Your task to perform on an android device: Open privacy settings Image 0: 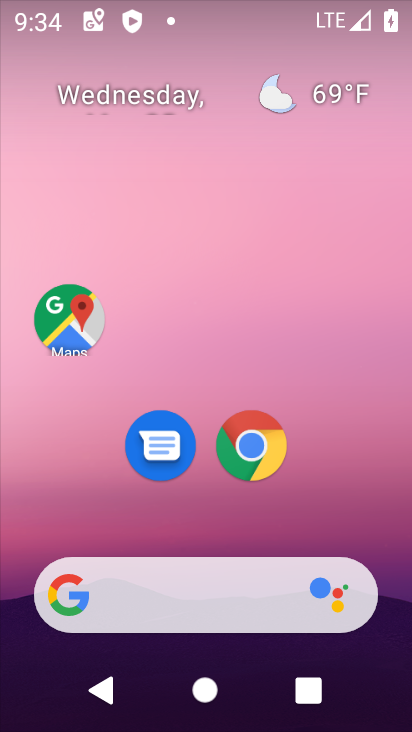
Step 0: drag from (300, 449) to (289, 134)
Your task to perform on an android device: Open privacy settings Image 1: 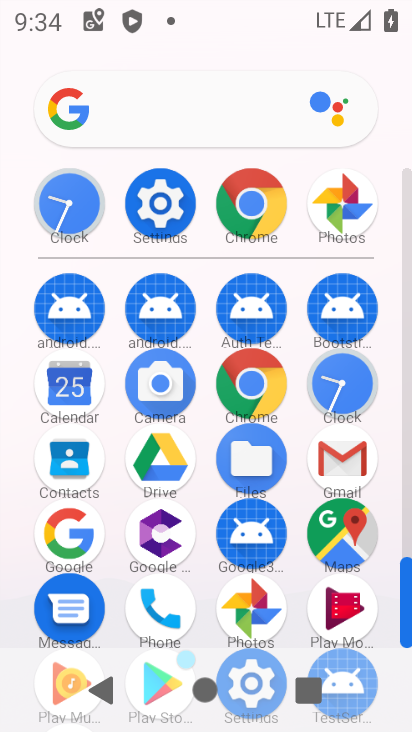
Step 1: click (172, 203)
Your task to perform on an android device: Open privacy settings Image 2: 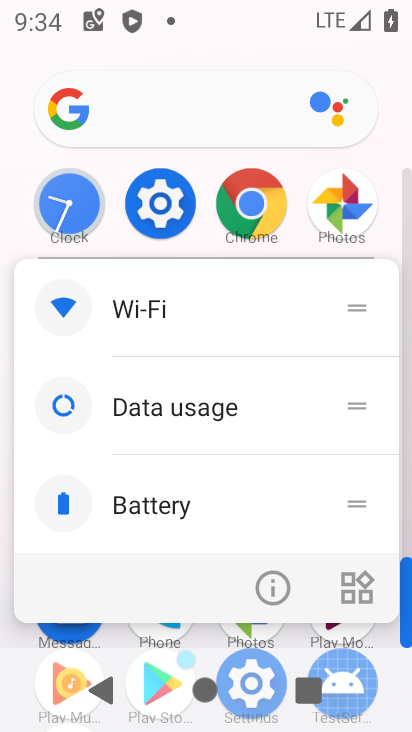
Step 2: click (159, 204)
Your task to perform on an android device: Open privacy settings Image 3: 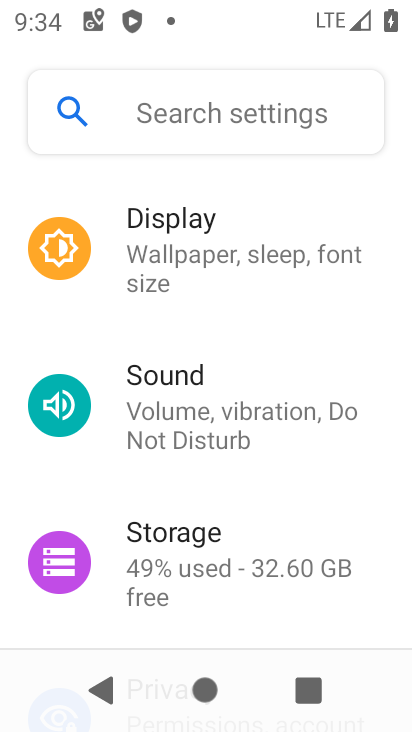
Step 3: drag from (337, 500) to (346, 232)
Your task to perform on an android device: Open privacy settings Image 4: 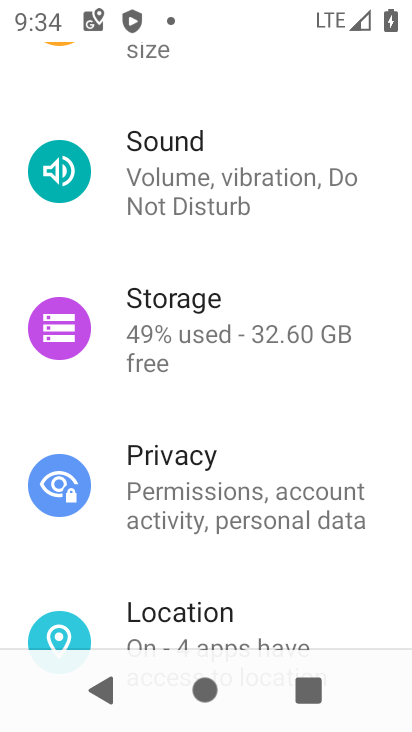
Step 4: click (148, 453)
Your task to perform on an android device: Open privacy settings Image 5: 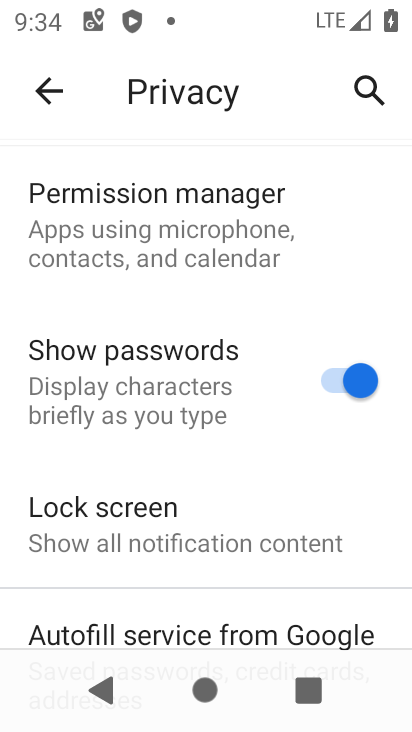
Step 5: task complete